Your task to perform on an android device: See recent photos Image 0: 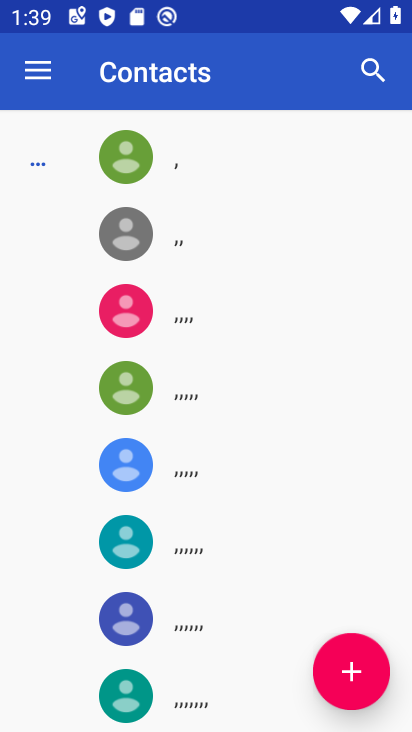
Step 0: press home button
Your task to perform on an android device: See recent photos Image 1: 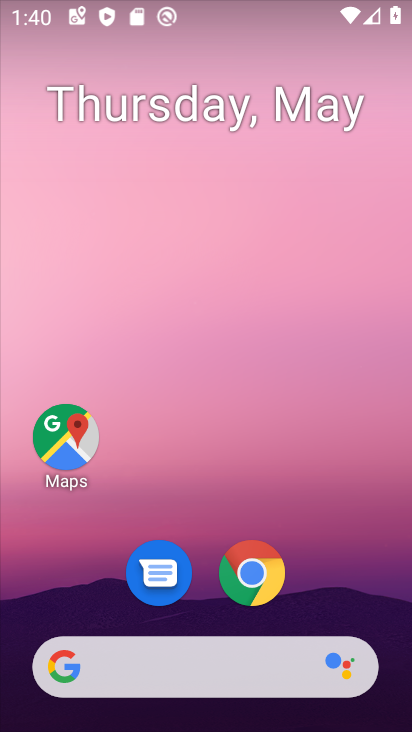
Step 1: drag from (206, 670) to (175, 18)
Your task to perform on an android device: See recent photos Image 2: 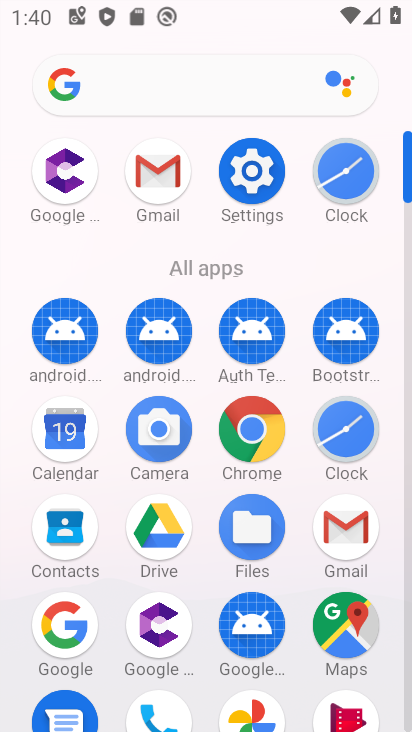
Step 2: click (246, 702)
Your task to perform on an android device: See recent photos Image 3: 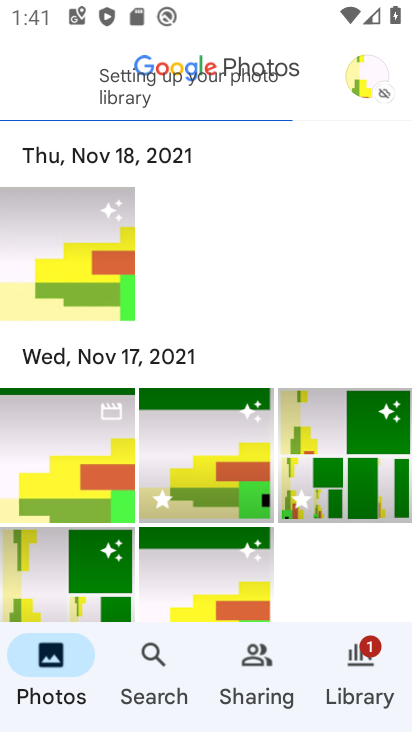
Step 3: task complete